Your task to perform on an android device: Check the weather Image 0: 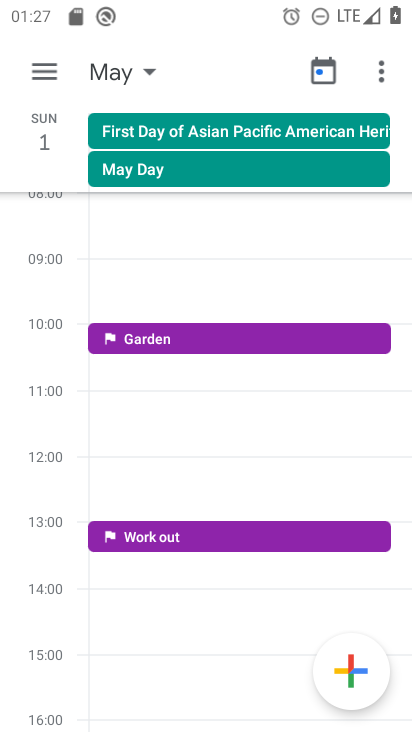
Step 0: press home button
Your task to perform on an android device: Check the weather Image 1: 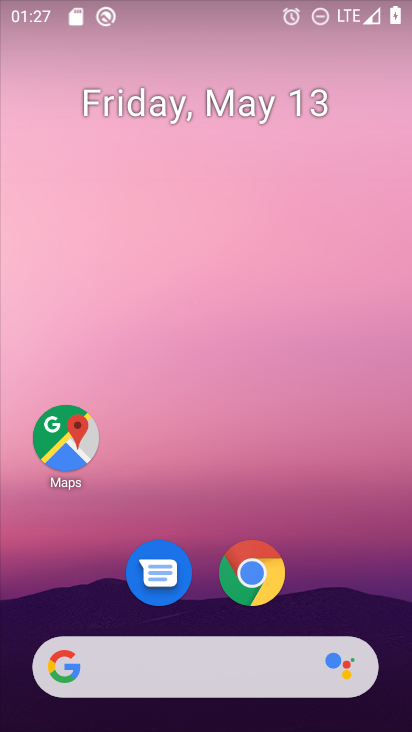
Step 1: click (158, 671)
Your task to perform on an android device: Check the weather Image 2: 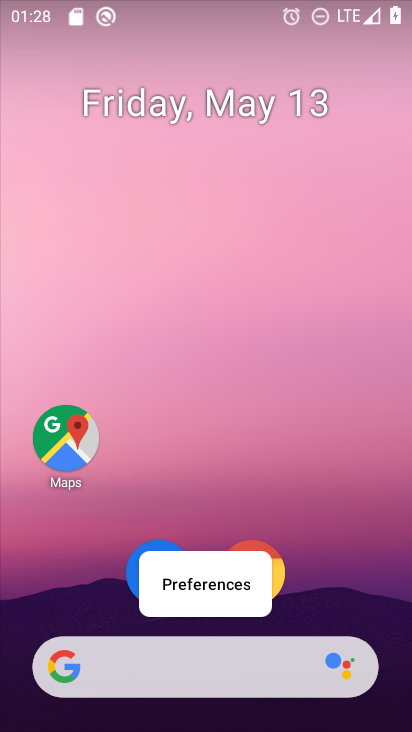
Step 2: click (244, 658)
Your task to perform on an android device: Check the weather Image 3: 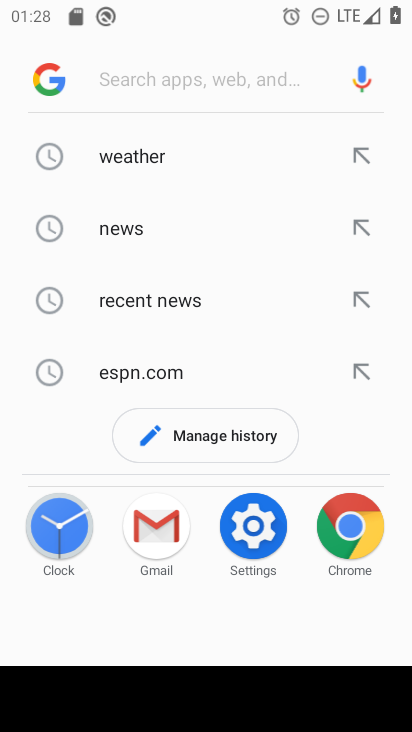
Step 3: click (159, 165)
Your task to perform on an android device: Check the weather Image 4: 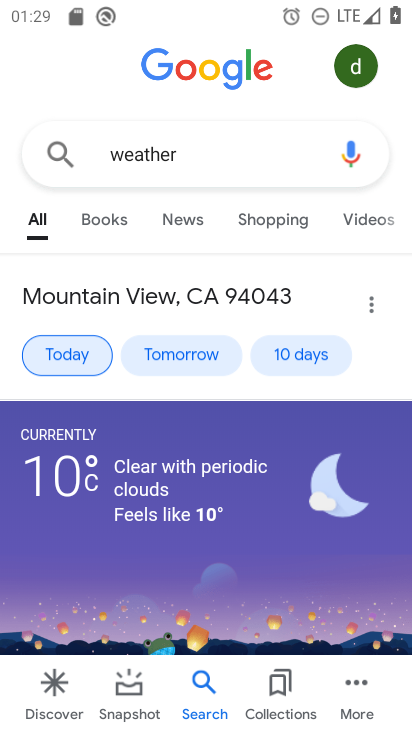
Step 4: task complete